Your task to perform on an android device: change the upload size in google photos Image 0: 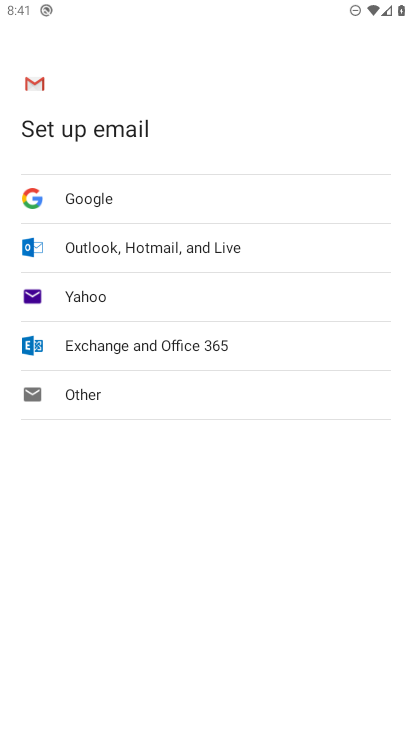
Step 0: press home button
Your task to perform on an android device: change the upload size in google photos Image 1: 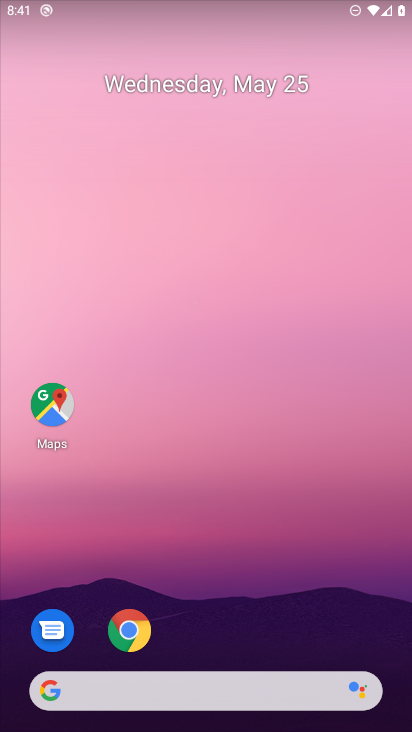
Step 1: drag from (219, 625) to (227, 344)
Your task to perform on an android device: change the upload size in google photos Image 2: 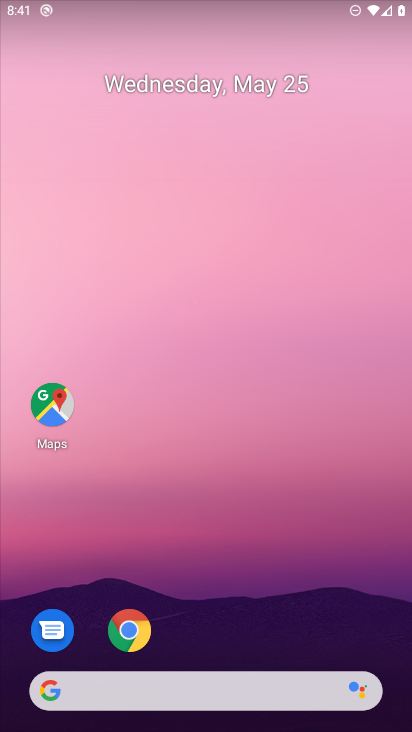
Step 2: drag from (247, 311) to (247, 229)
Your task to perform on an android device: change the upload size in google photos Image 3: 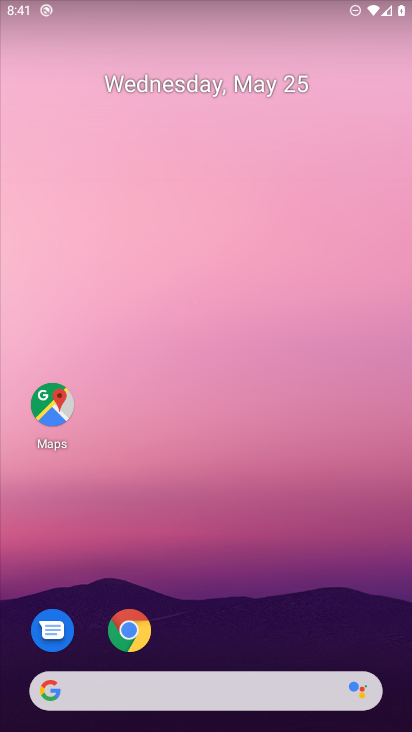
Step 3: drag from (197, 662) to (194, 222)
Your task to perform on an android device: change the upload size in google photos Image 4: 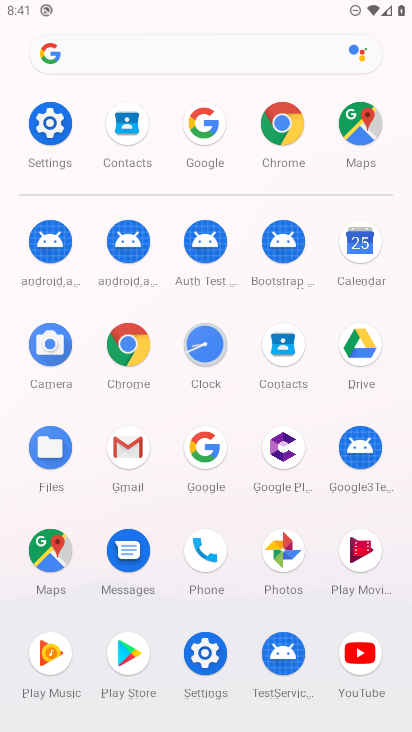
Step 4: click (290, 549)
Your task to perform on an android device: change the upload size in google photos Image 5: 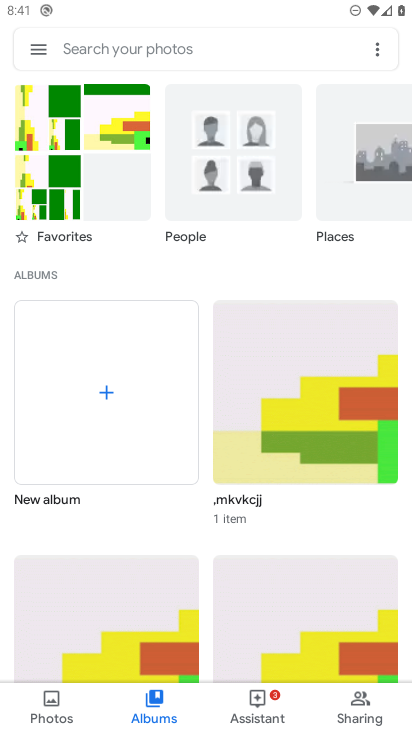
Step 5: click (29, 45)
Your task to perform on an android device: change the upload size in google photos Image 6: 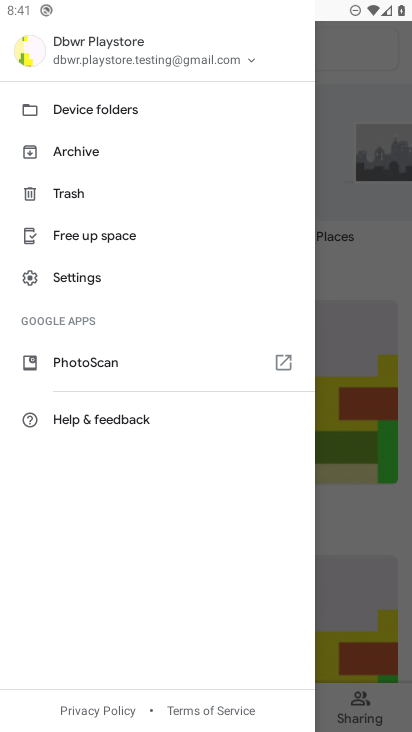
Step 6: click (74, 271)
Your task to perform on an android device: change the upload size in google photos Image 7: 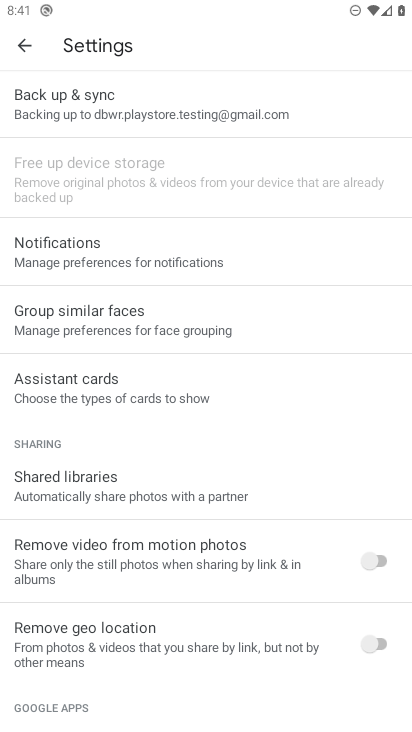
Step 7: drag from (103, 705) to (126, 400)
Your task to perform on an android device: change the upload size in google photos Image 8: 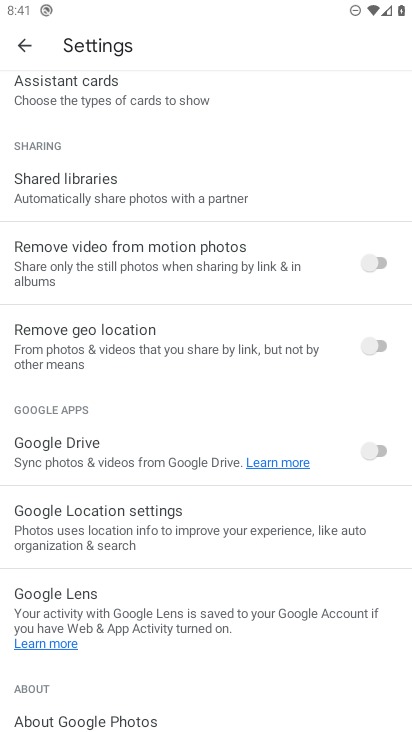
Step 8: drag from (103, 83) to (157, 518)
Your task to perform on an android device: change the upload size in google photos Image 9: 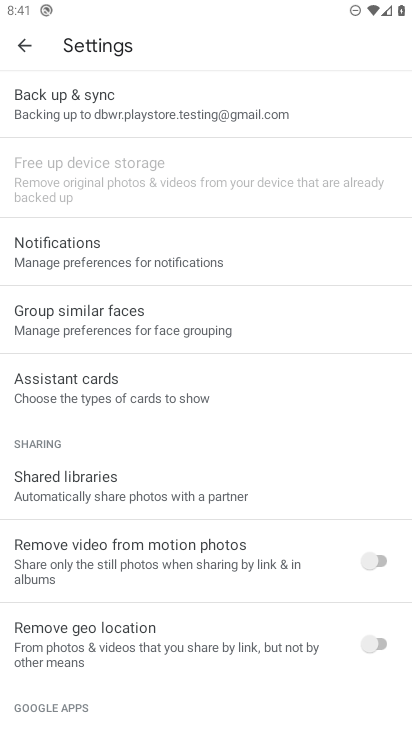
Step 9: click (70, 99)
Your task to perform on an android device: change the upload size in google photos Image 10: 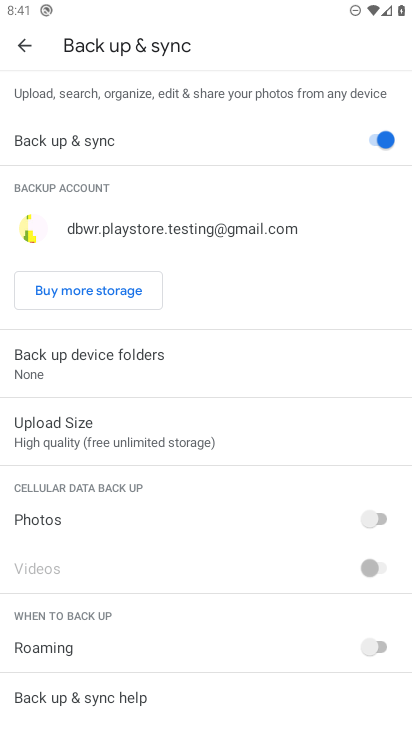
Step 10: click (75, 446)
Your task to perform on an android device: change the upload size in google photos Image 11: 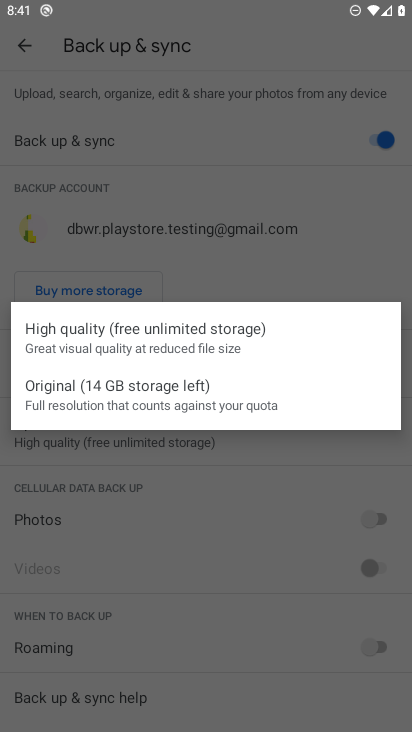
Step 11: click (84, 400)
Your task to perform on an android device: change the upload size in google photos Image 12: 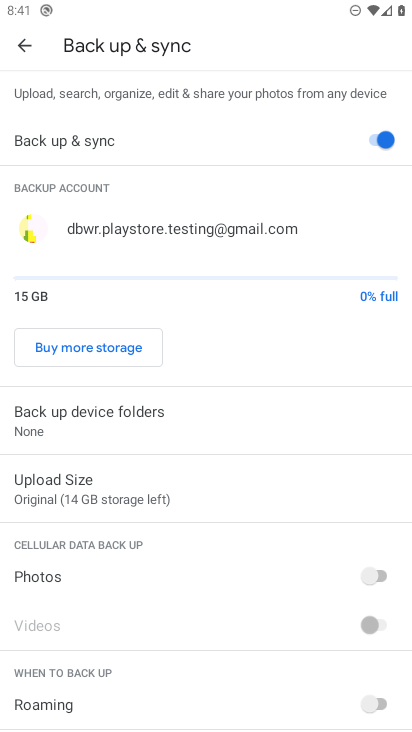
Step 12: task complete